Your task to perform on an android device: When is my next appointment? Image 0: 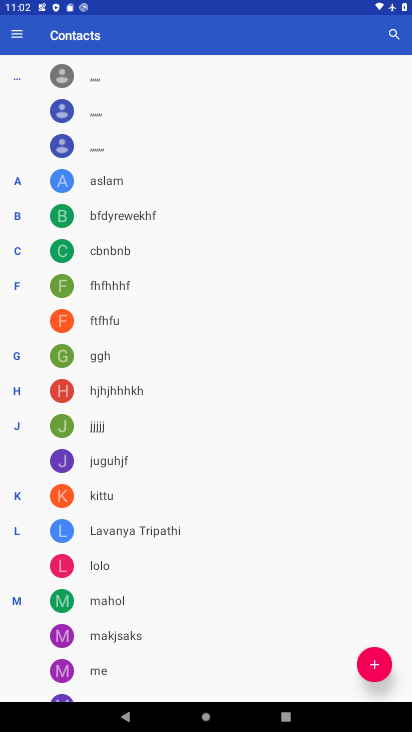
Step 0: press home button
Your task to perform on an android device: When is my next appointment? Image 1: 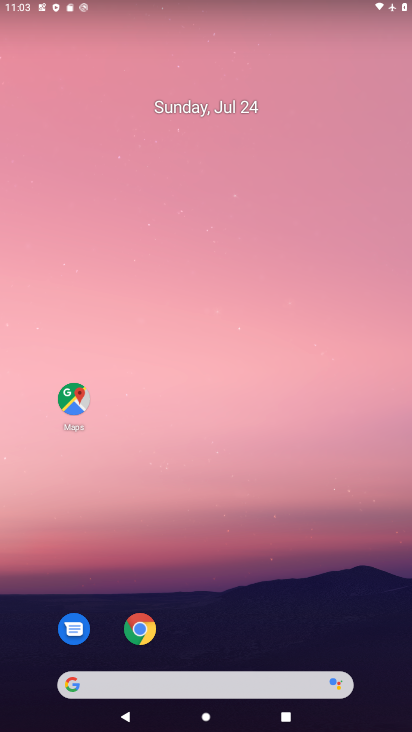
Step 1: task complete